Your task to perform on an android device: Go to internet settings Image 0: 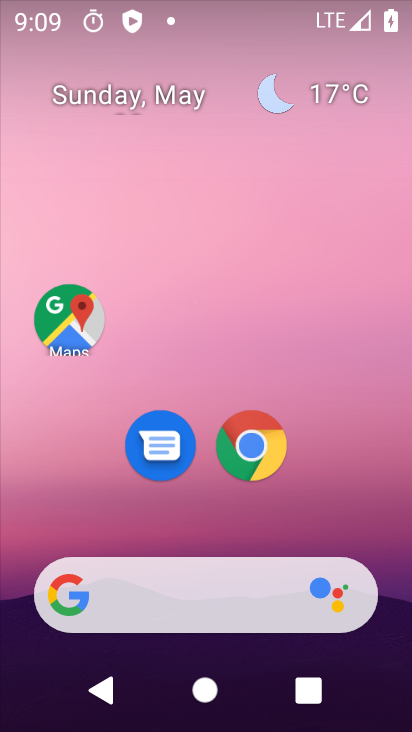
Step 0: drag from (397, 625) to (251, 197)
Your task to perform on an android device: Go to internet settings Image 1: 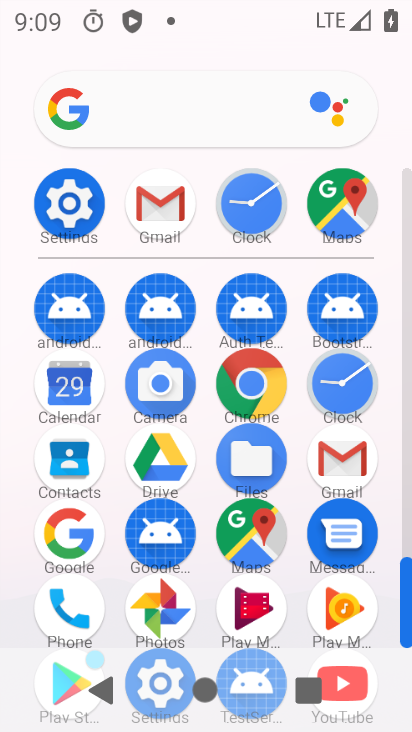
Step 1: click (78, 204)
Your task to perform on an android device: Go to internet settings Image 2: 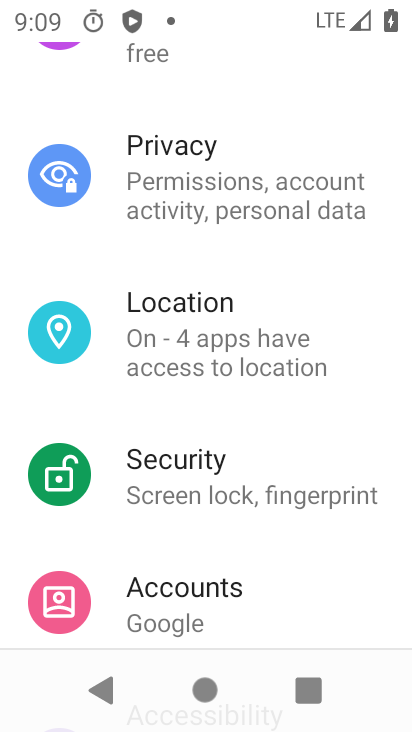
Step 2: drag from (315, 182) to (274, 724)
Your task to perform on an android device: Go to internet settings Image 3: 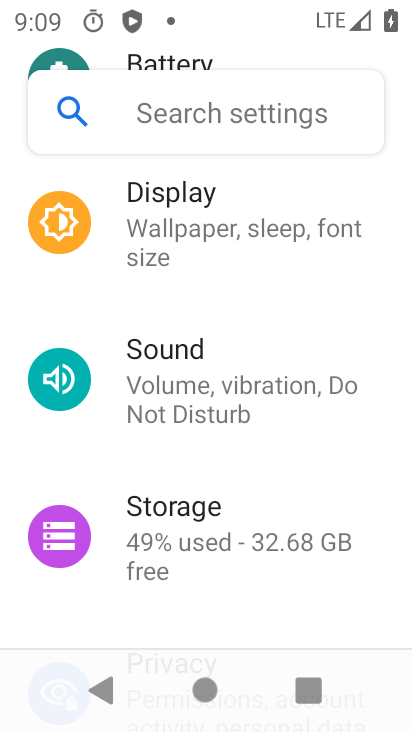
Step 3: drag from (237, 201) to (253, 723)
Your task to perform on an android device: Go to internet settings Image 4: 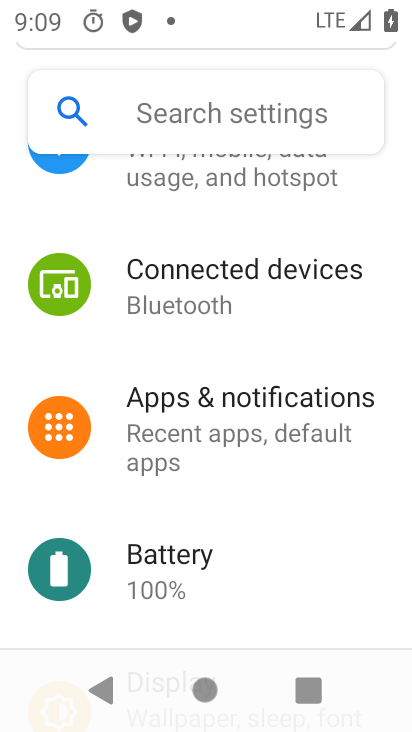
Step 4: drag from (191, 316) to (248, 726)
Your task to perform on an android device: Go to internet settings Image 5: 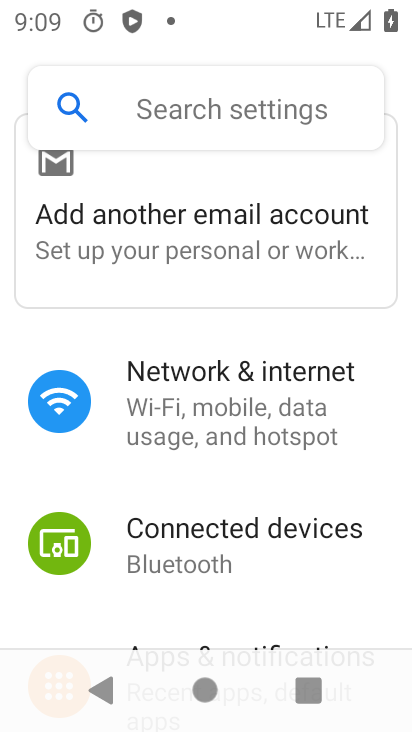
Step 5: click (217, 396)
Your task to perform on an android device: Go to internet settings Image 6: 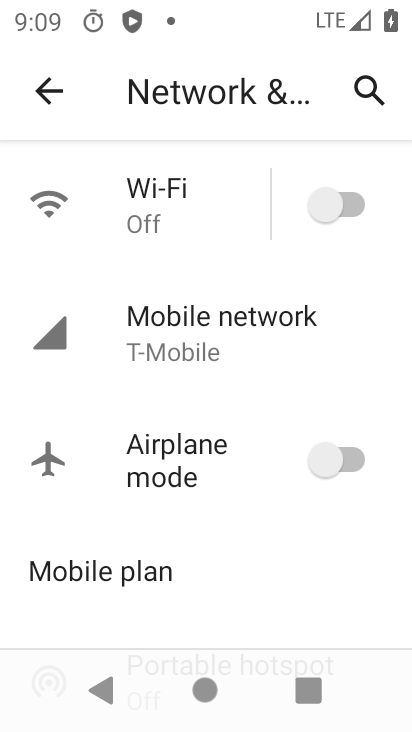
Step 6: task complete